Your task to perform on an android device: Go to location settings Image 0: 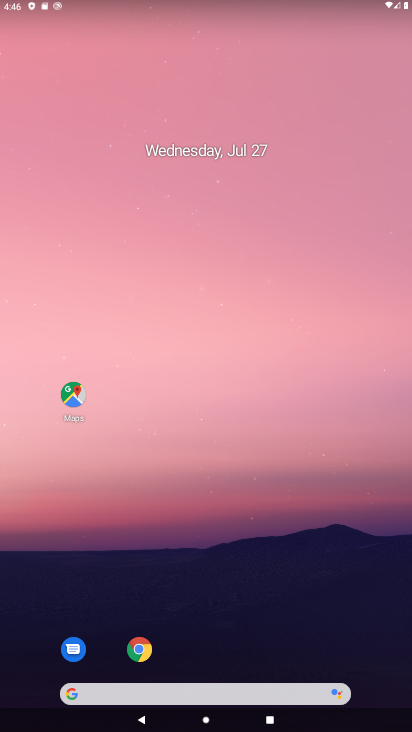
Step 0: drag from (177, 695) to (167, 64)
Your task to perform on an android device: Go to location settings Image 1: 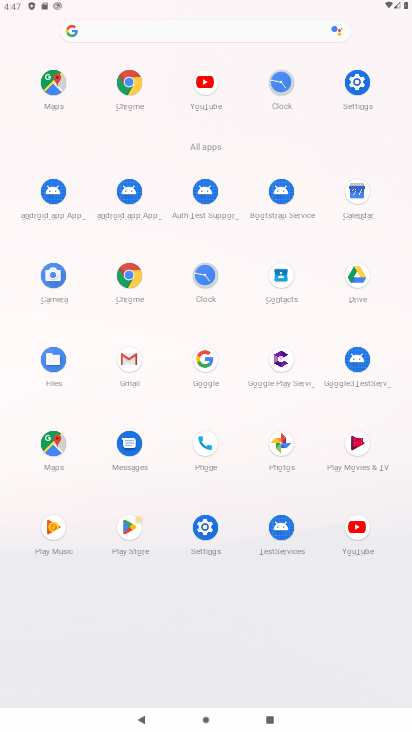
Step 1: click (357, 79)
Your task to perform on an android device: Go to location settings Image 2: 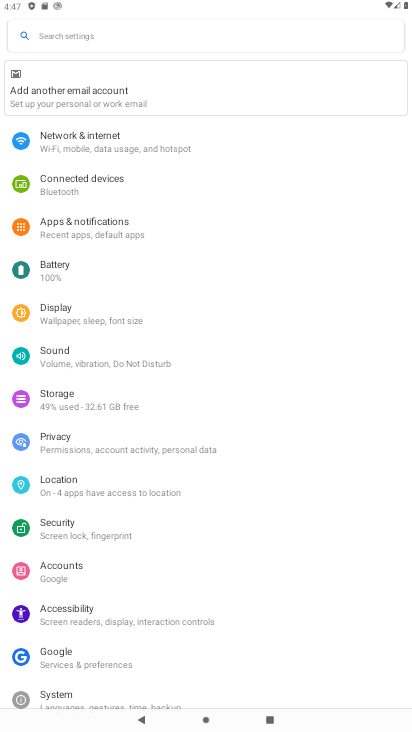
Step 2: click (68, 487)
Your task to perform on an android device: Go to location settings Image 3: 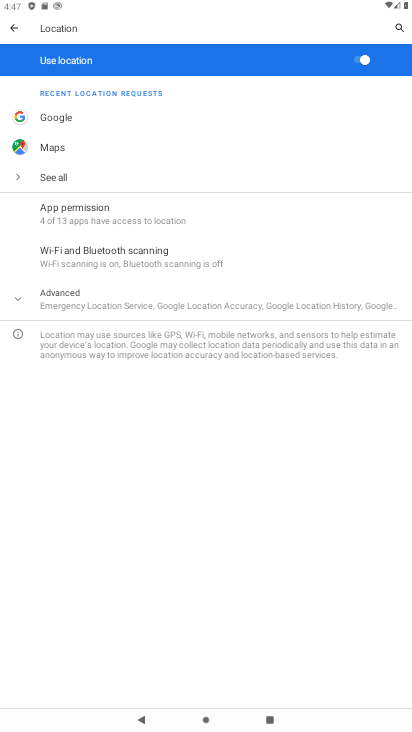
Step 3: task complete